Your task to perform on an android device: turn off data saver in the chrome app Image 0: 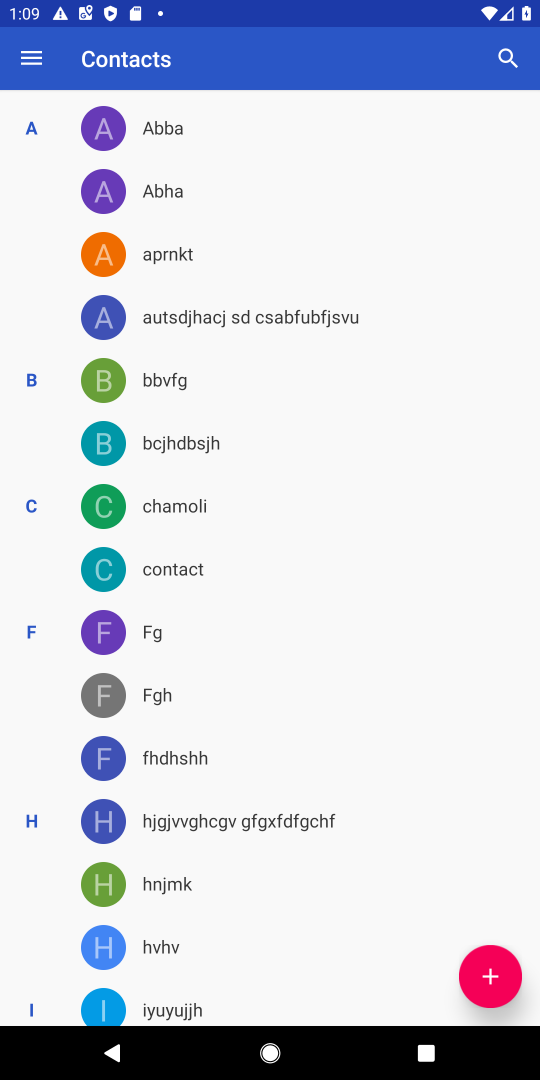
Step 0: press home button
Your task to perform on an android device: turn off data saver in the chrome app Image 1: 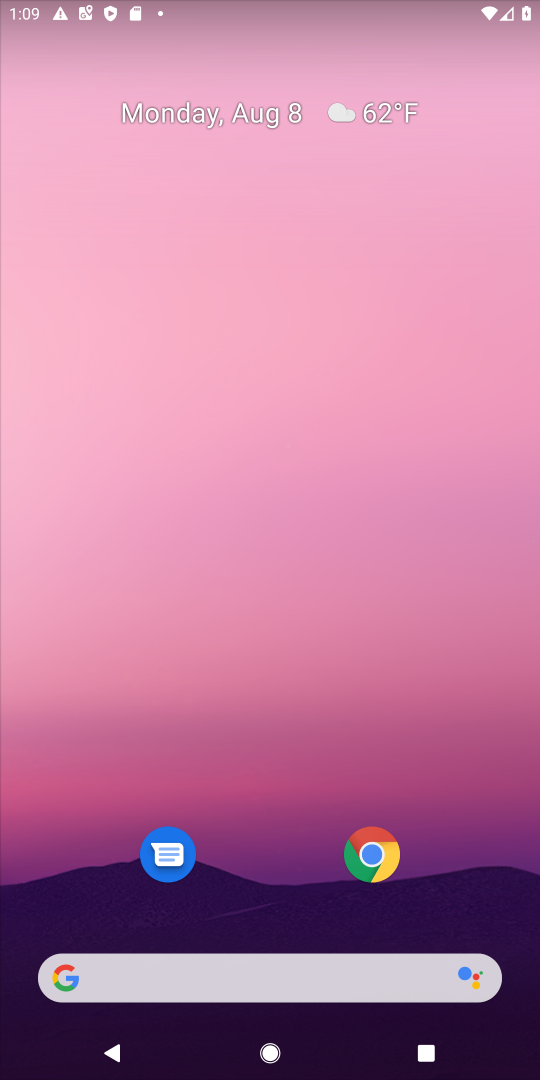
Step 1: click (363, 838)
Your task to perform on an android device: turn off data saver in the chrome app Image 2: 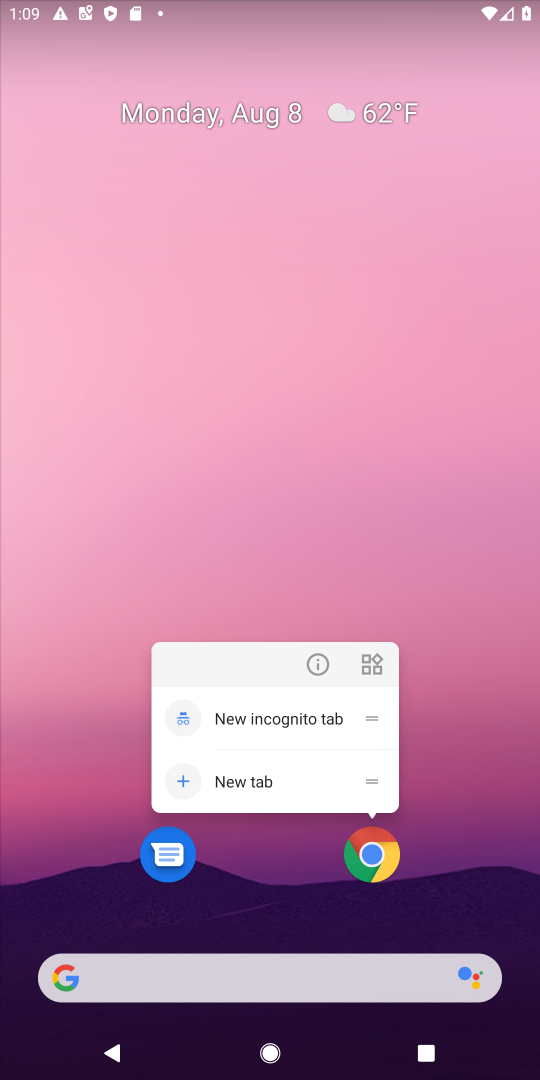
Step 2: click (361, 847)
Your task to perform on an android device: turn off data saver in the chrome app Image 3: 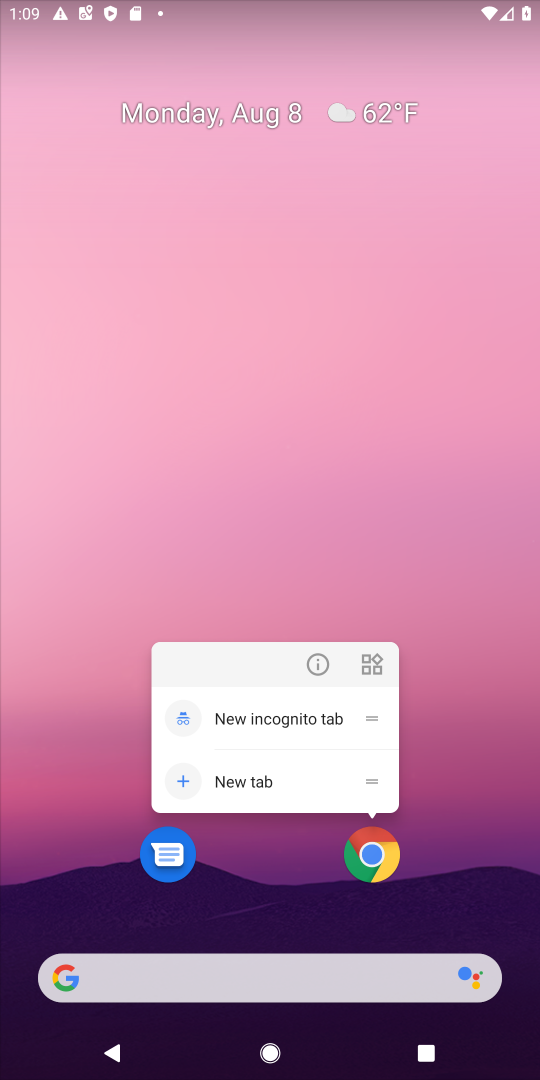
Step 3: click (372, 843)
Your task to perform on an android device: turn off data saver in the chrome app Image 4: 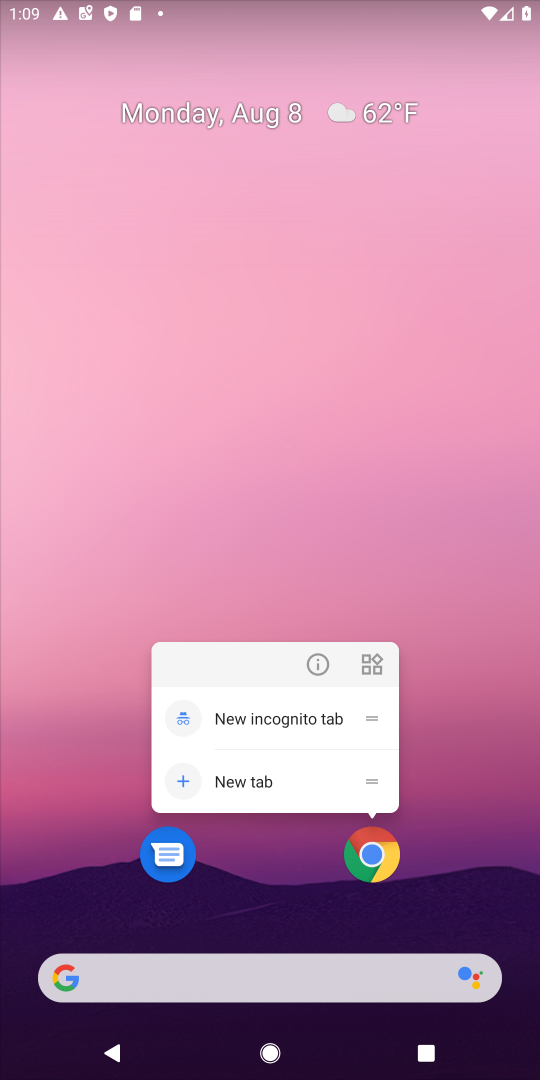
Step 4: click (382, 865)
Your task to perform on an android device: turn off data saver in the chrome app Image 5: 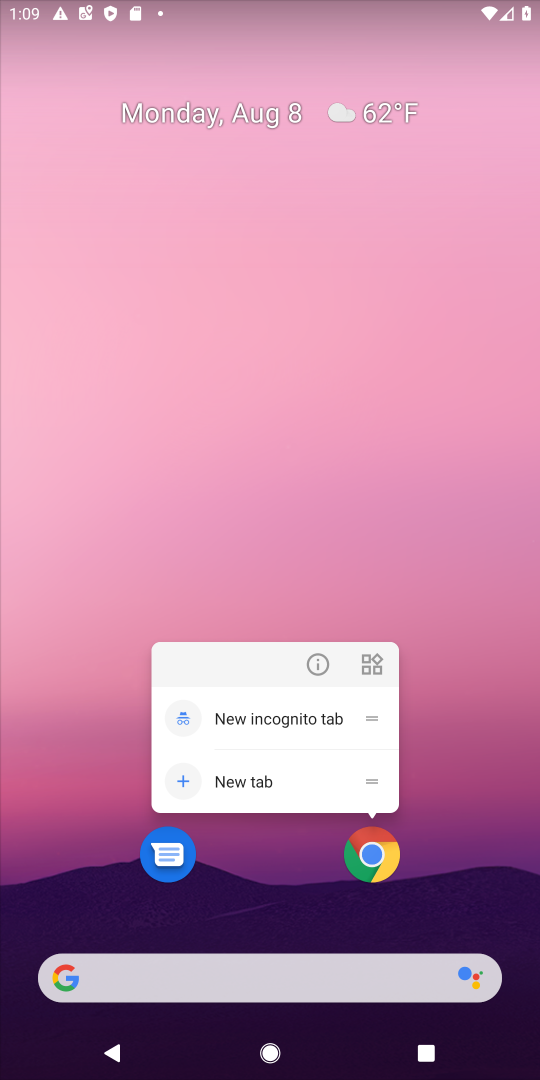
Step 5: click (382, 865)
Your task to perform on an android device: turn off data saver in the chrome app Image 6: 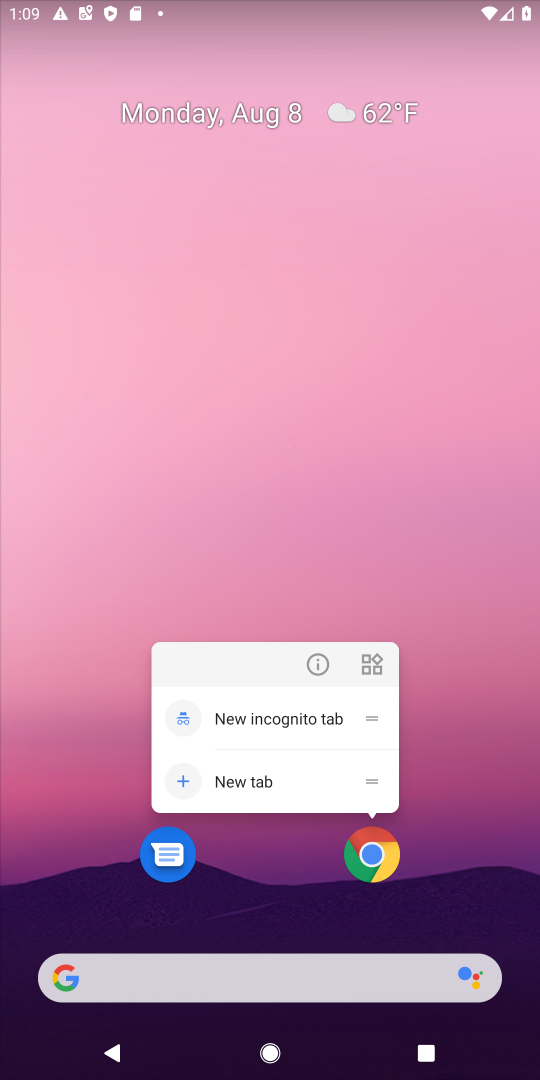
Step 6: click (368, 856)
Your task to perform on an android device: turn off data saver in the chrome app Image 7: 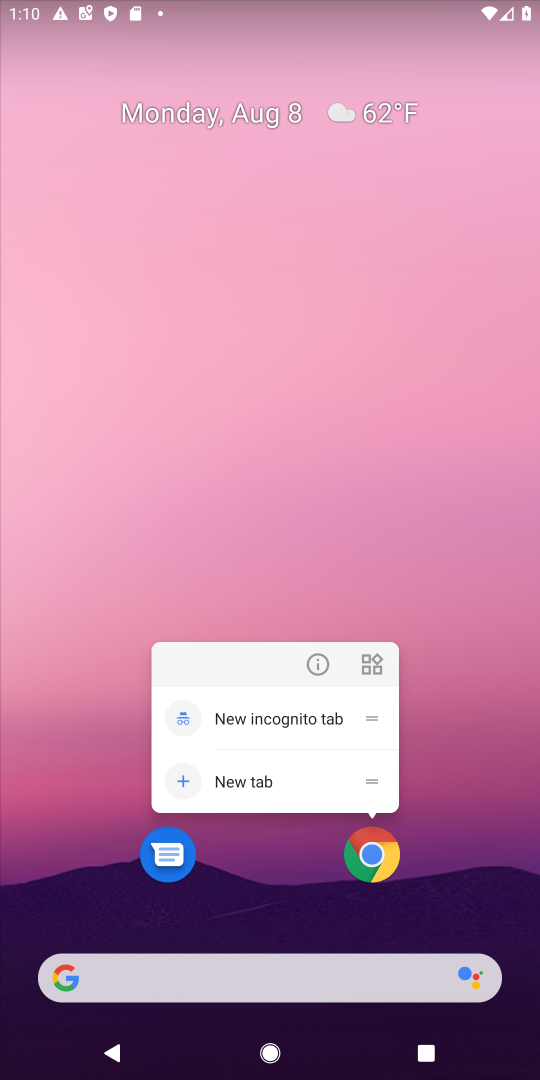
Step 7: click (383, 844)
Your task to perform on an android device: turn off data saver in the chrome app Image 8: 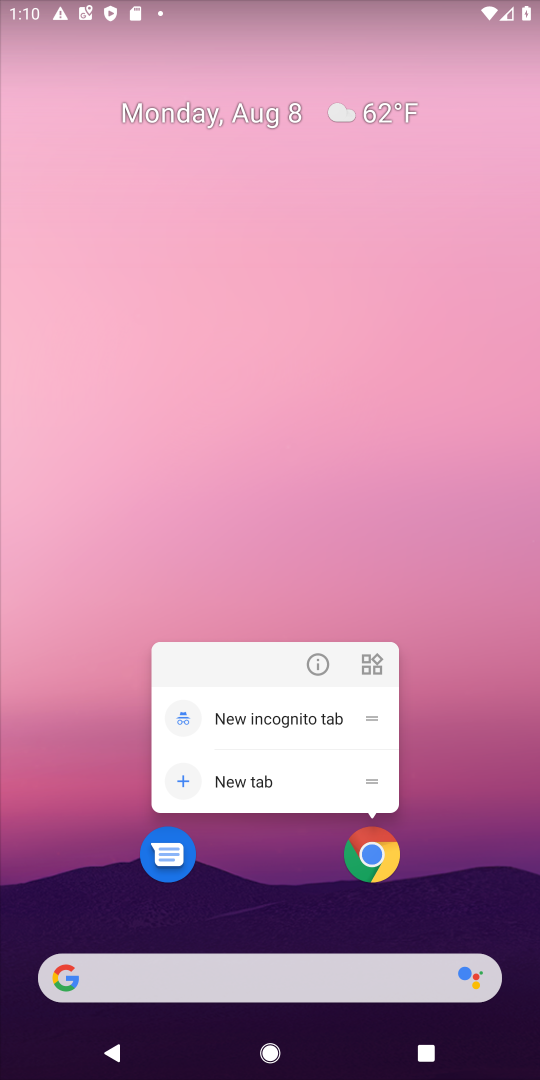
Step 8: click (370, 859)
Your task to perform on an android device: turn off data saver in the chrome app Image 9: 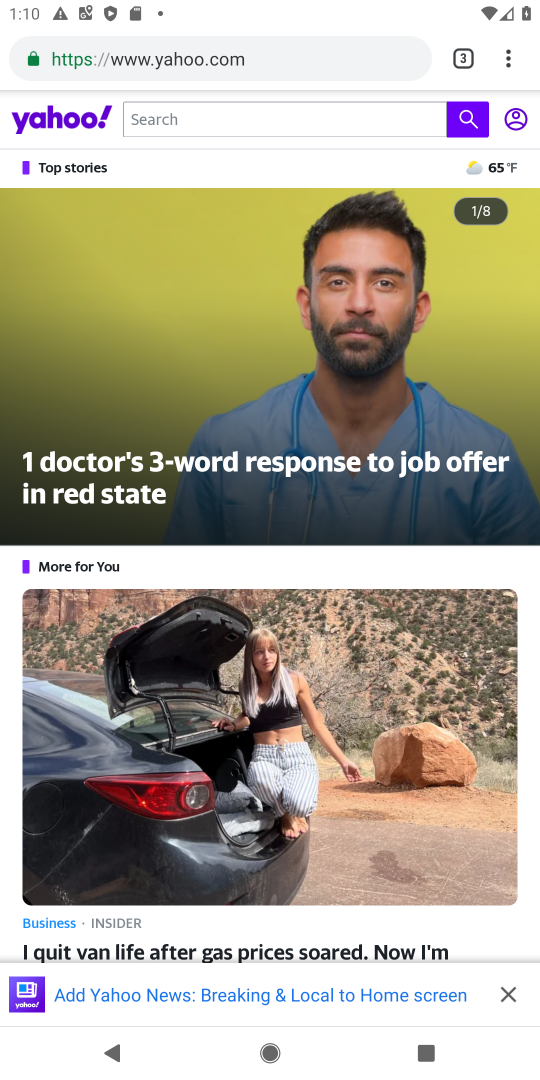
Step 9: drag from (502, 57) to (309, 743)
Your task to perform on an android device: turn off data saver in the chrome app Image 10: 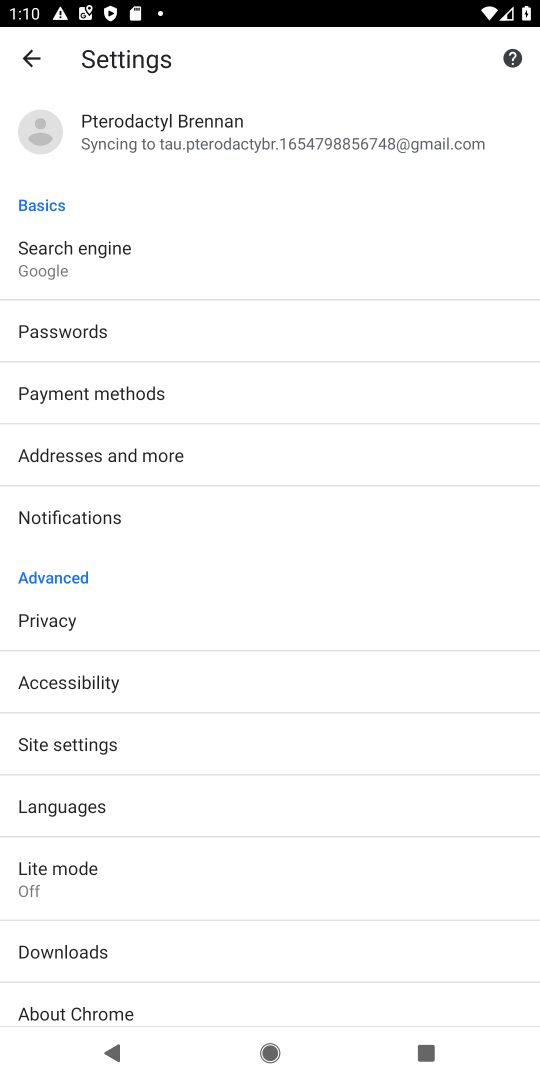
Step 10: click (52, 881)
Your task to perform on an android device: turn off data saver in the chrome app Image 11: 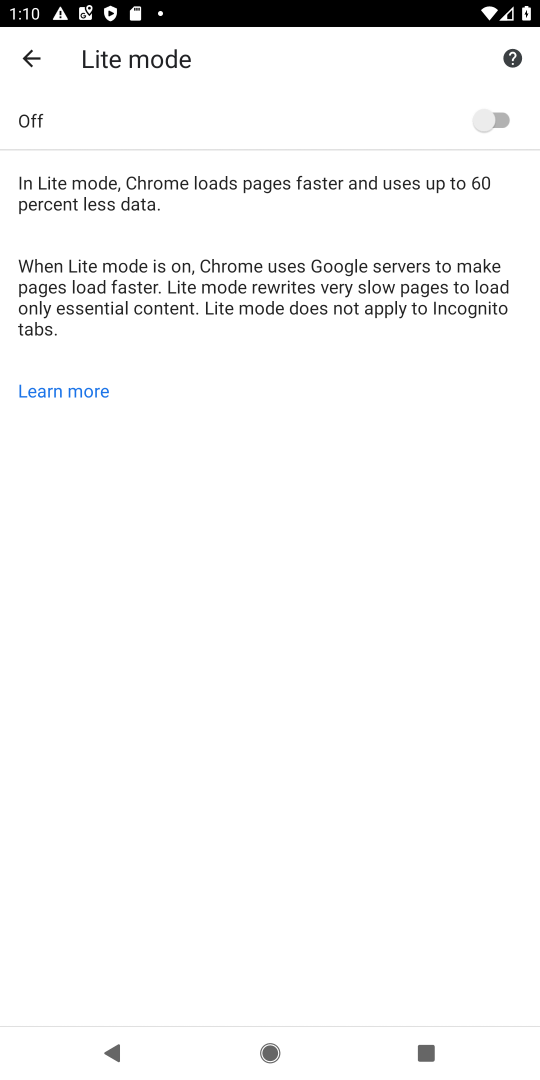
Step 11: task complete